Your task to perform on an android device: Go to Wikipedia Image 0: 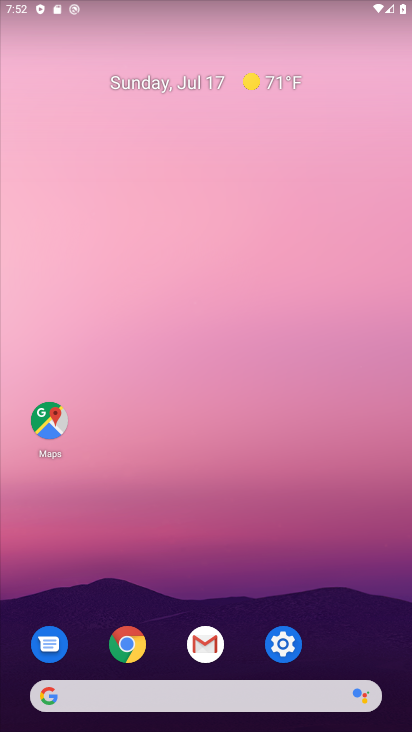
Step 0: click (130, 628)
Your task to perform on an android device: Go to Wikipedia Image 1: 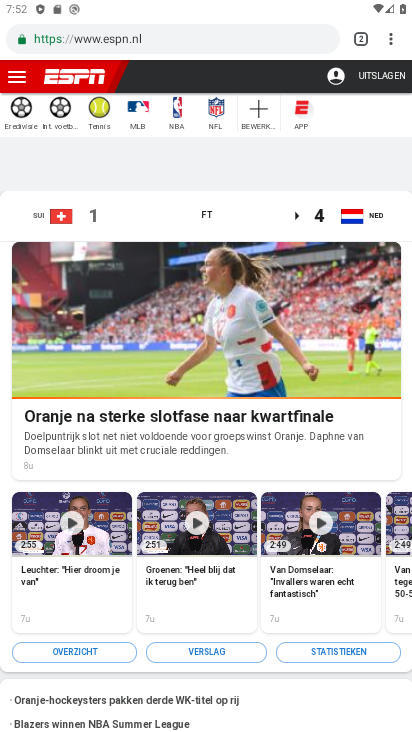
Step 1: click (385, 46)
Your task to perform on an android device: Go to Wikipedia Image 2: 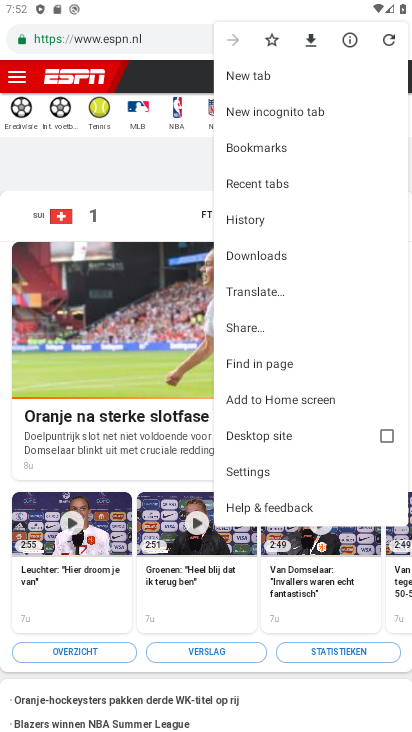
Step 2: click (243, 76)
Your task to perform on an android device: Go to Wikipedia Image 3: 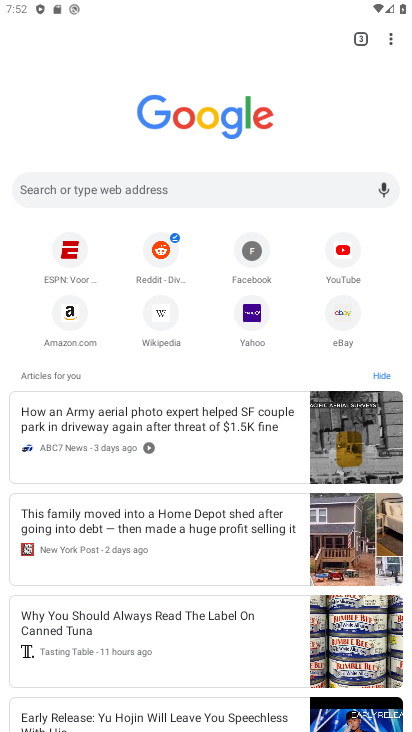
Step 3: click (165, 323)
Your task to perform on an android device: Go to Wikipedia Image 4: 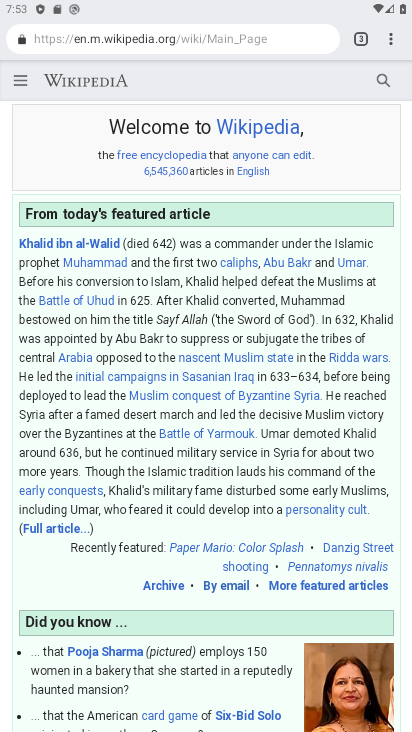
Step 4: task complete